Your task to perform on an android device: open a new tab in the chrome app Image 0: 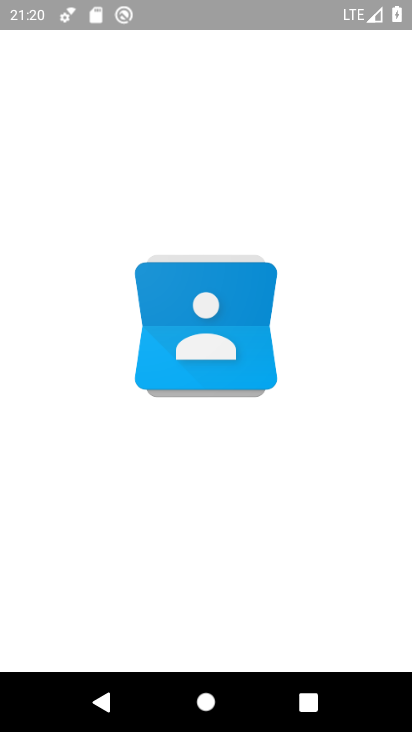
Step 0: drag from (336, 612) to (340, 422)
Your task to perform on an android device: open a new tab in the chrome app Image 1: 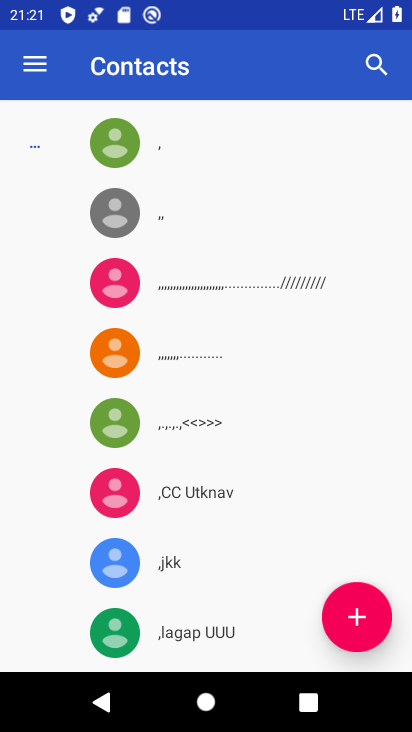
Step 1: click (363, 621)
Your task to perform on an android device: open a new tab in the chrome app Image 2: 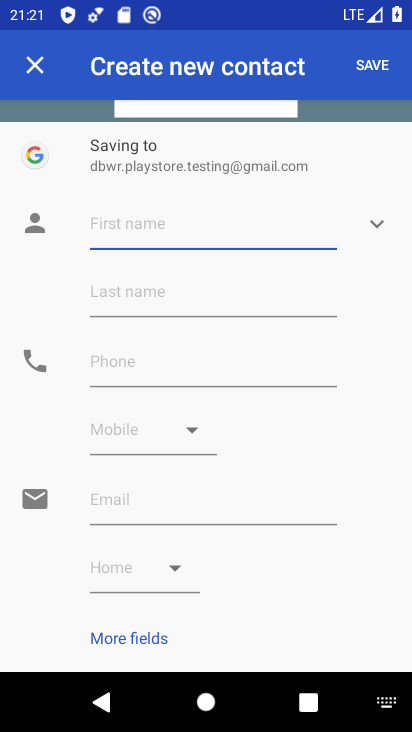
Step 2: type "gjfjfyff"
Your task to perform on an android device: open a new tab in the chrome app Image 3: 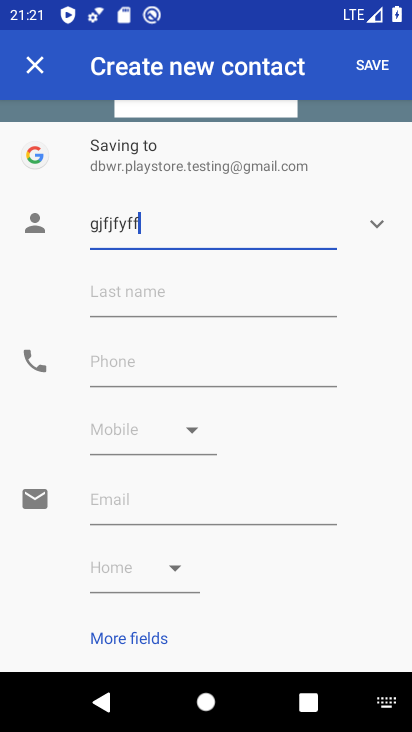
Step 3: click (225, 346)
Your task to perform on an android device: open a new tab in the chrome app Image 4: 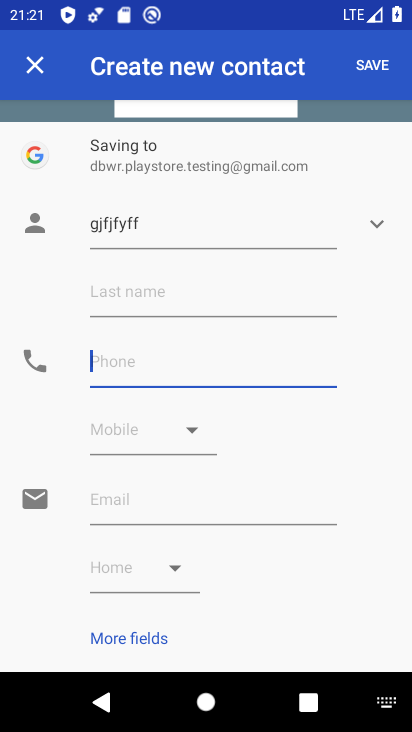
Step 4: type "9887998888"
Your task to perform on an android device: open a new tab in the chrome app Image 5: 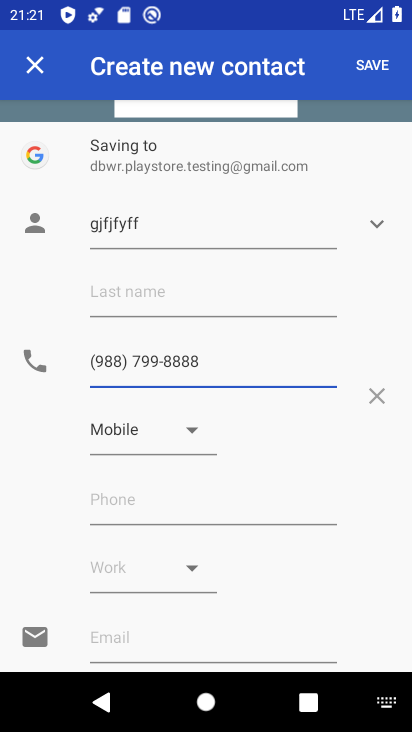
Step 5: click (386, 66)
Your task to perform on an android device: open a new tab in the chrome app Image 6: 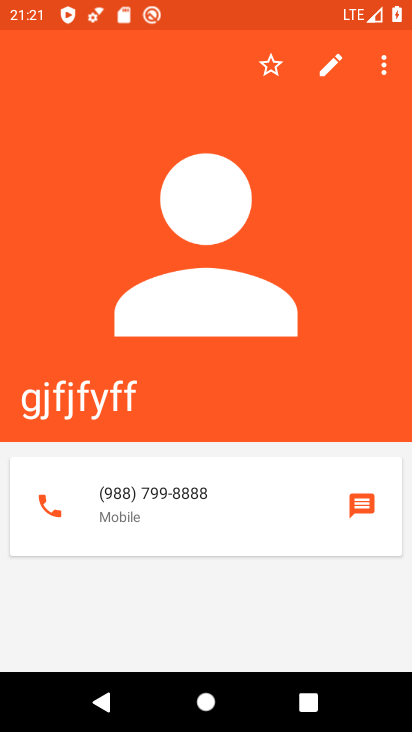
Step 6: task complete